Your task to perform on an android device: How much does a 3 bedroom apartment rent for in Chicago? Image 0: 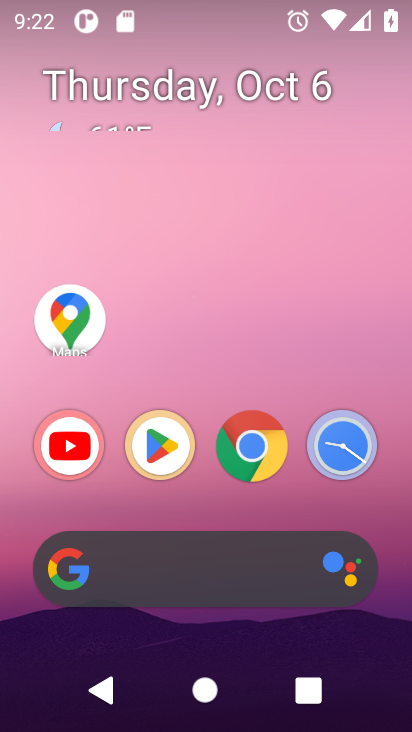
Step 0: click (160, 579)
Your task to perform on an android device: How much does a 3 bedroom apartment rent for in Chicago? Image 1: 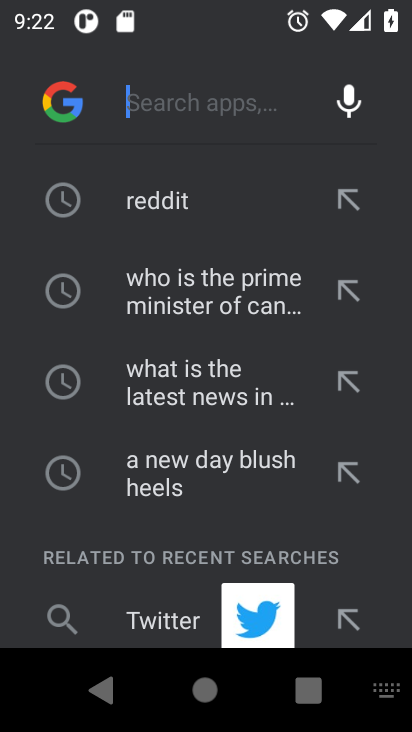
Step 1: type "How much does a 3 bedroom apartment rent for in Chicago?"
Your task to perform on an android device: How much does a 3 bedroom apartment rent for in Chicago? Image 2: 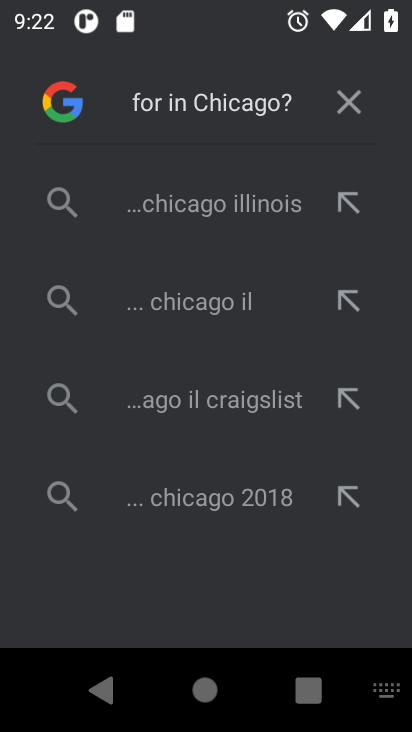
Step 2: click (248, 193)
Your task to perform on an android device: How much does a 3 bedroom apartment rent for in Chicago? Image 3: 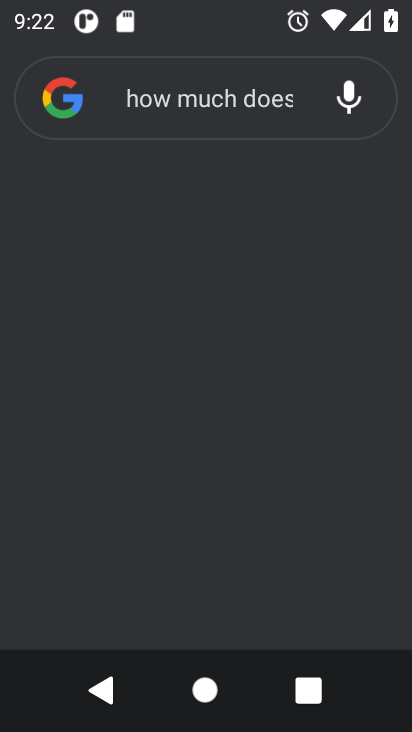
Step 3: task complete